Your task to perform on an android device: Go to Yahoo.com Image 0: 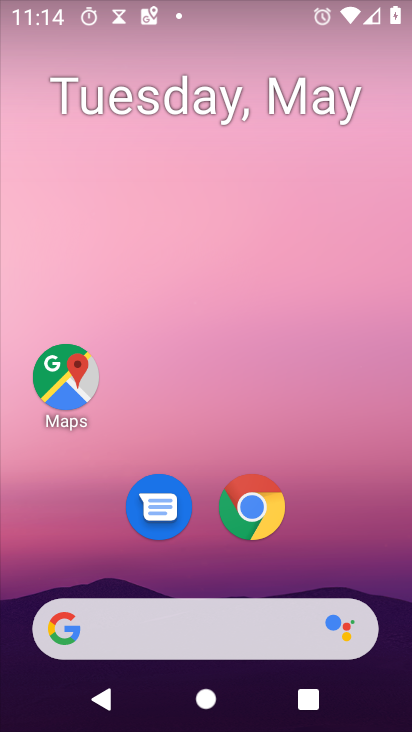
Step 0: click (245, 502)
Your task to perform on an android device: Go to Yahoo.com Image 1: 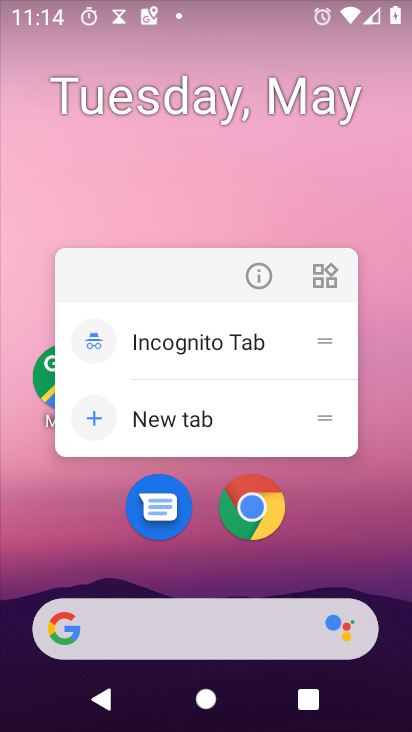
Step 1: click (244, 501)
Your task to perform on an android device: Go to Yahoo.com Image 2: 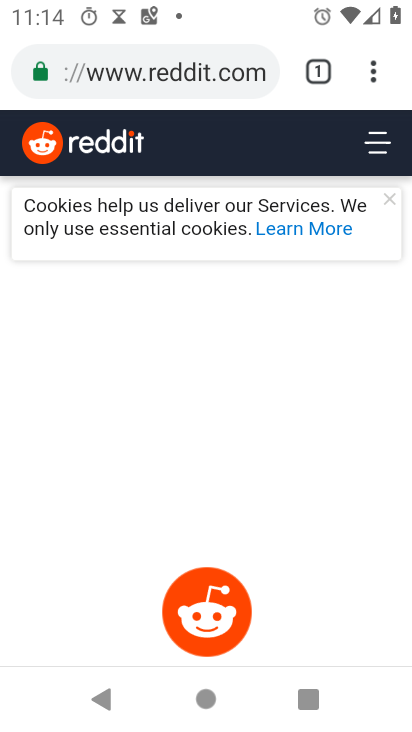
Step 2: click (316, 64)
Your task to perform on an android device: Go to Yahoo.com Image 3: 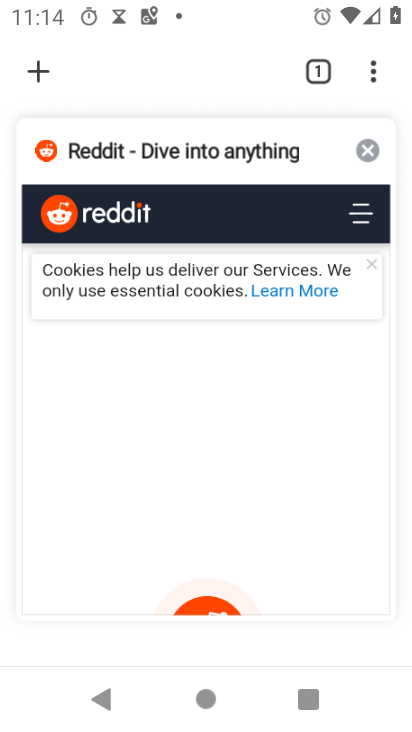
Step 3: click (366, 148)
Your task to perform on an android device: Go to Yahoo.com Image 4: 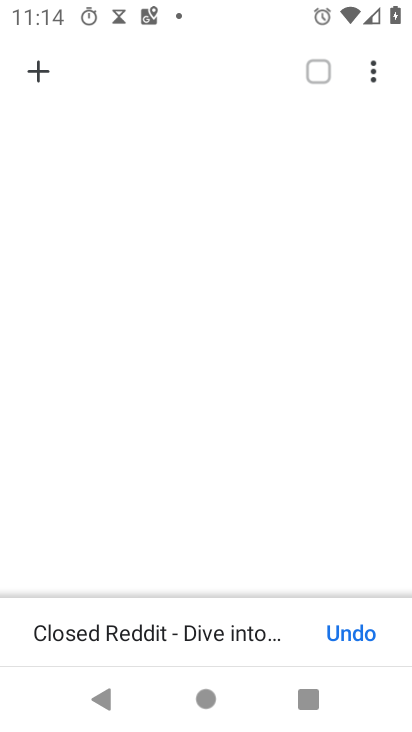
Step 4: click (42, 68)
Your task to perform on an android device: Go to Yahoo.com Image 5: 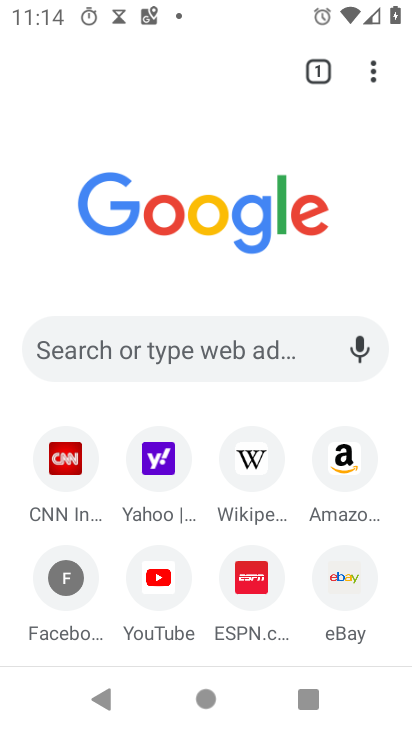
Step 5: click (179, 456)
Your task to perform on an android device: Go to Yahoo.com Image 6: 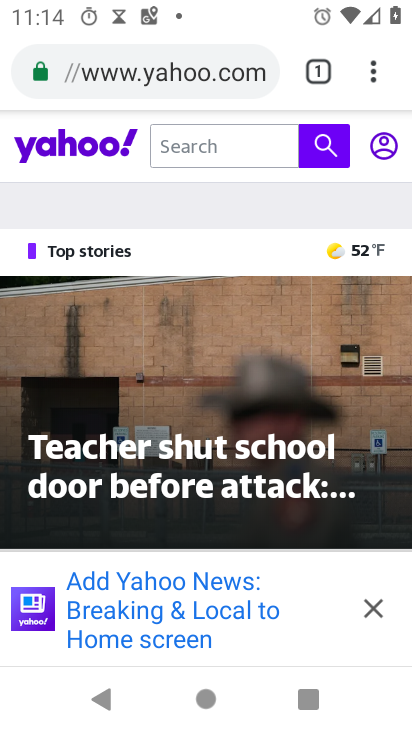
Step 6: task complete